Your task to perform on an android device: Open my contact list Image 0: 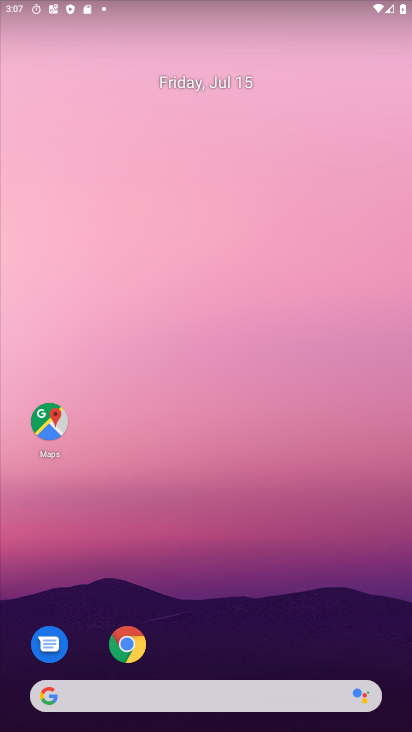
Step 0: drag from (217, 527) to (217, 59)
Your task to perform on an android device: Open my contact list Image 1: 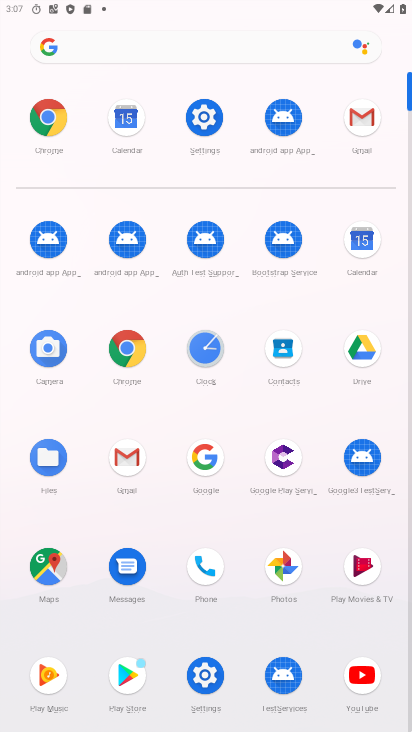
Step 1: click (277, 360)
Your task to perform on an android device: Open my contact list Image 2: 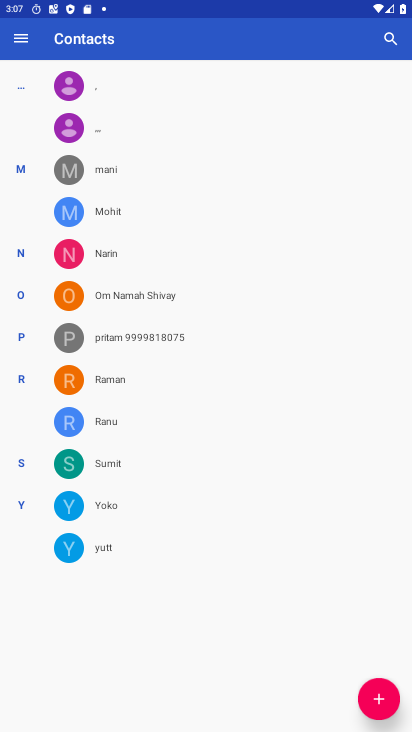
Step 2: task complete